Your task to perform on an android device: Open the calendar and show me this week's events? Image 0: 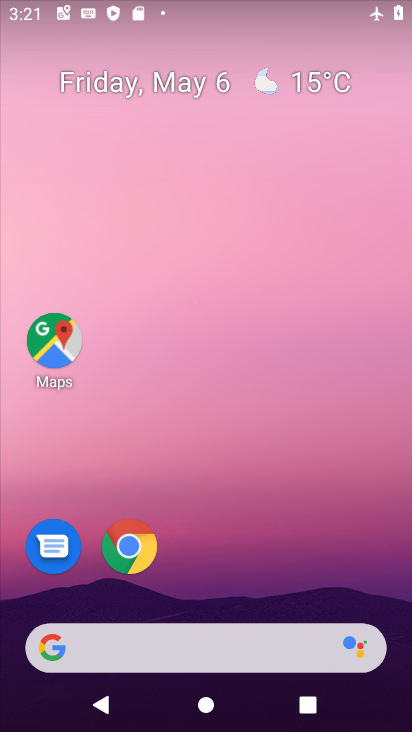
Step 0: drag from (279, 577) to (227, 124)
Your task to perform on an android device: Open the calendar and show me this week's events? Image 1: 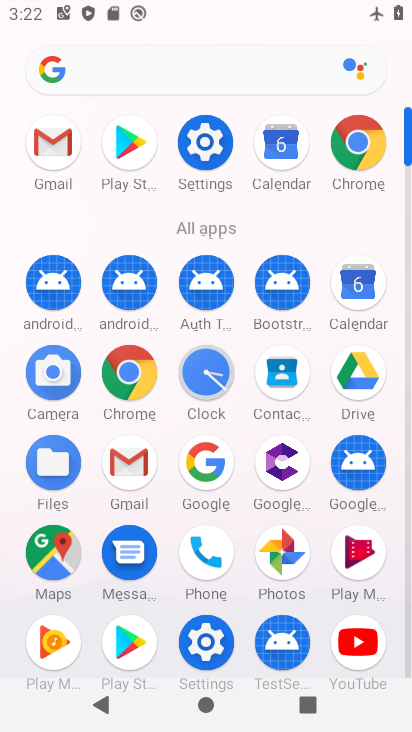
Step 1: click (357, 277)
Your task to perform on an android device: Open the calendar and show me this week's events? Image 2: 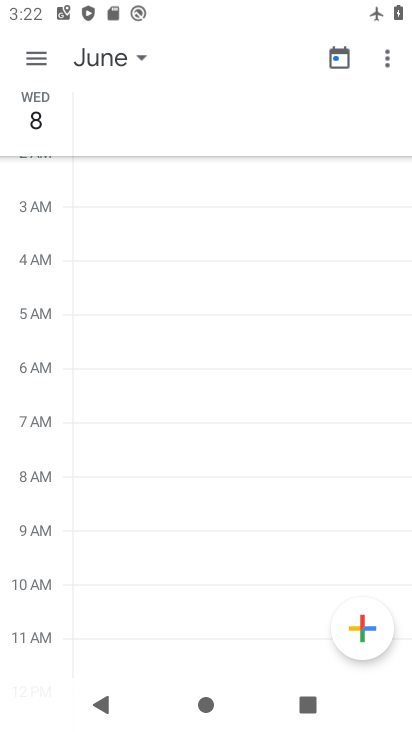
Step 2: click (38, 61)
Your task to perform on an android device: Open the calendar and show me this week's events? Image 3: 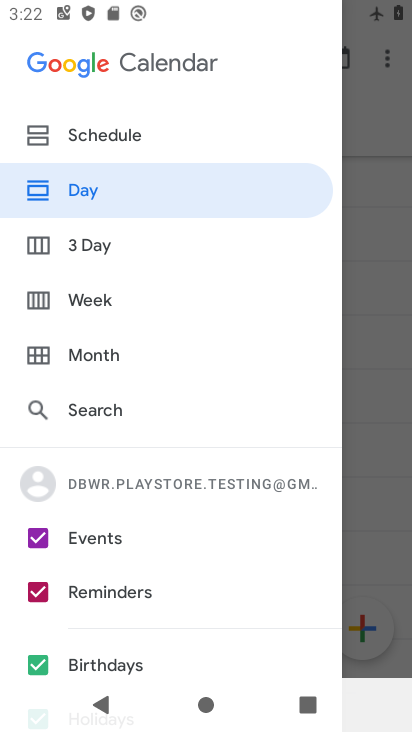
Step 3: click (38, 670)
Your task to perform on an android device: Open the calendar and show me this week's events? Image 4: 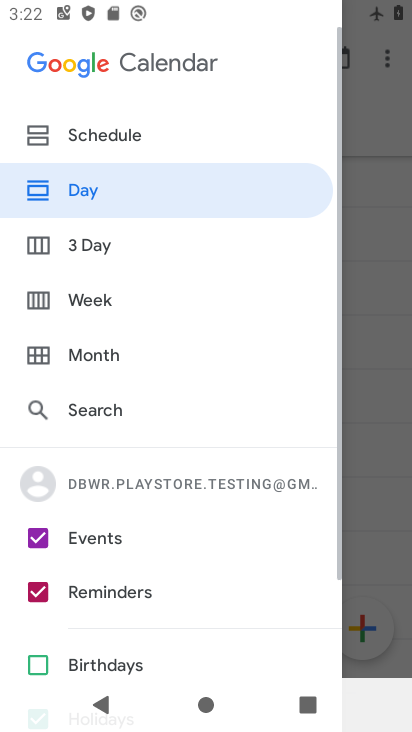
Step 4: drag from (201, 648) to (204, 463)
Your task to perform on an android device: Open the calendar and show me this week's events? Image 5: 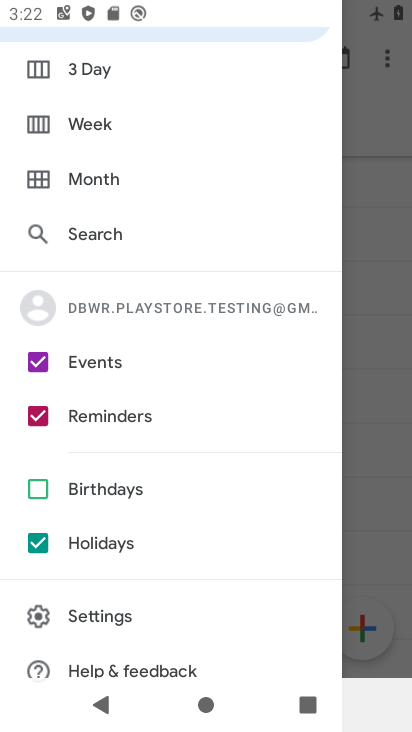
Step 5: drag from (194, 573) to (185, 253)
Your task to perform on an android device: Open the calendar and show me this week's events? Image 6: 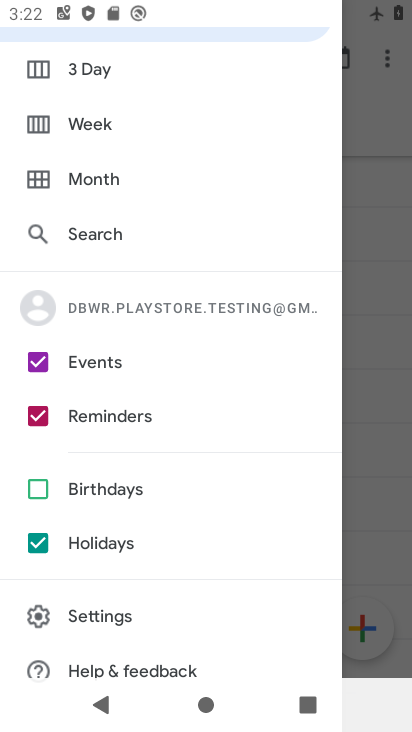
Step 6: click (43, 541)
Your task to perform on an android device: Open the calendar and show me this week's events? Image 7: 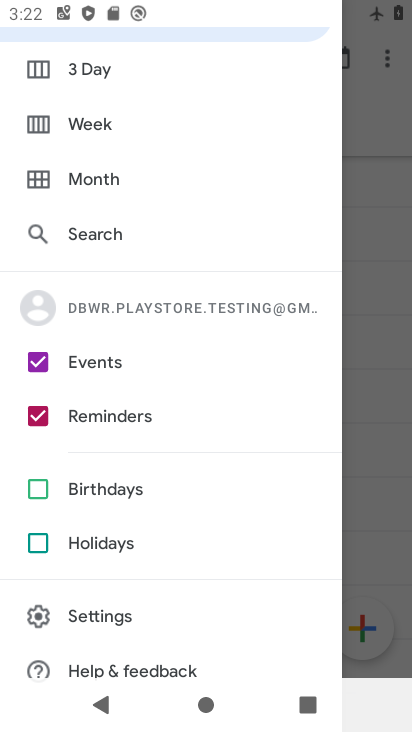
Step 7: click (36, 415)
Your task to perform on an android device: Open the calendar and show me this week's events? Image 8: 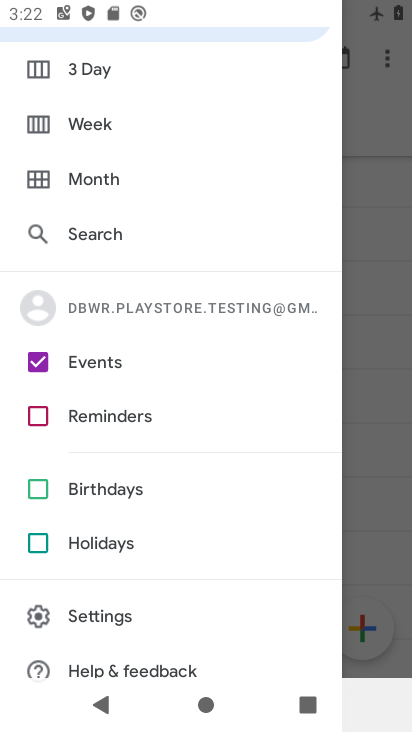
Step 8: click (112, 130)
Your task to perform on an android device: Open the calendar and show me this week's events? Image 9: 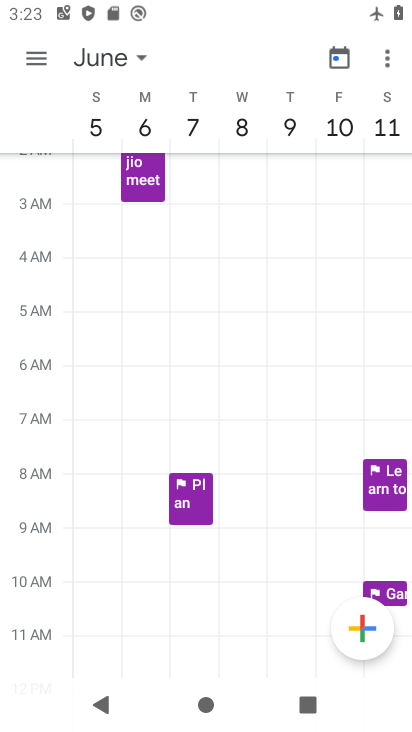
Step 9: click (131, 57)
Your task to perform on an android device: Open the calendar and show me this week's events? Image 10: 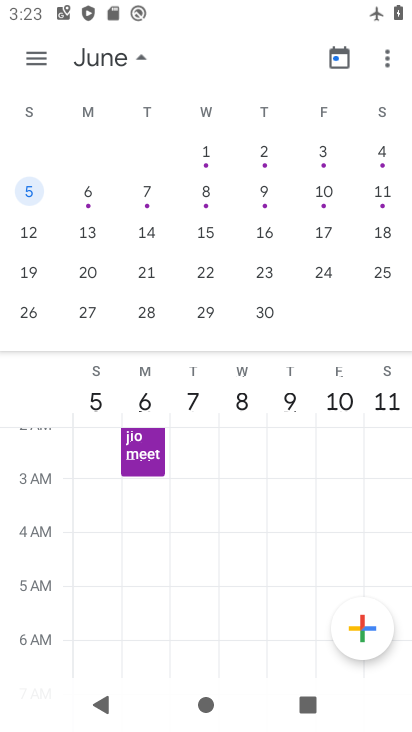
Step 10: drag from (55, 208) to (410, 183)
Your task to perform on an android device: Open the calendar and show me this week's events? Image 11: 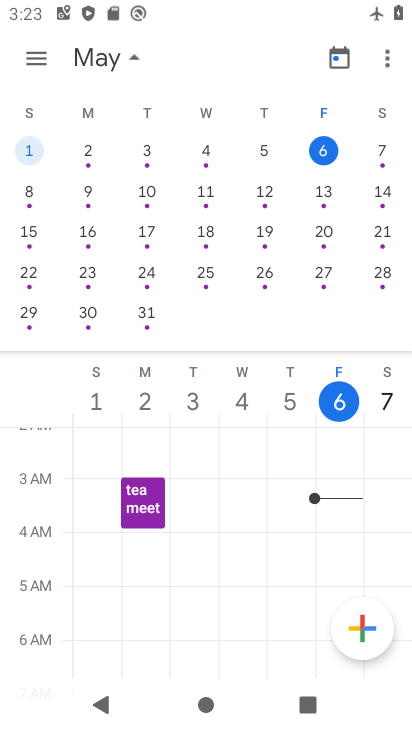
Step 11: click (268, 151)
Your task to perform on an android device: Open the calendar and show me this week's events? Image 12: 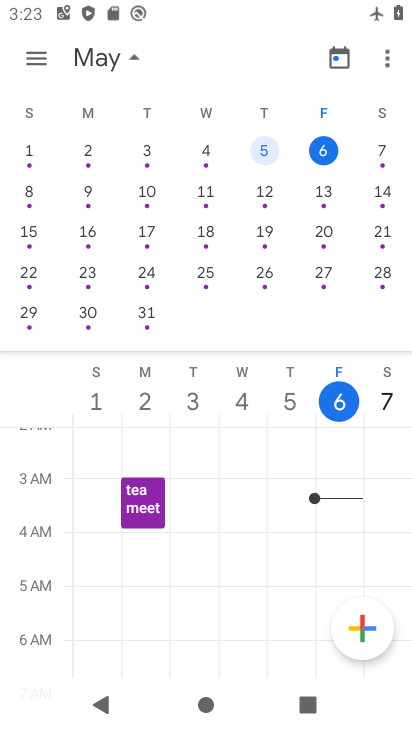
Step 12: task complete